Your task to perform on an android device: Search for seafood restaurants on Google Maps Image 0: 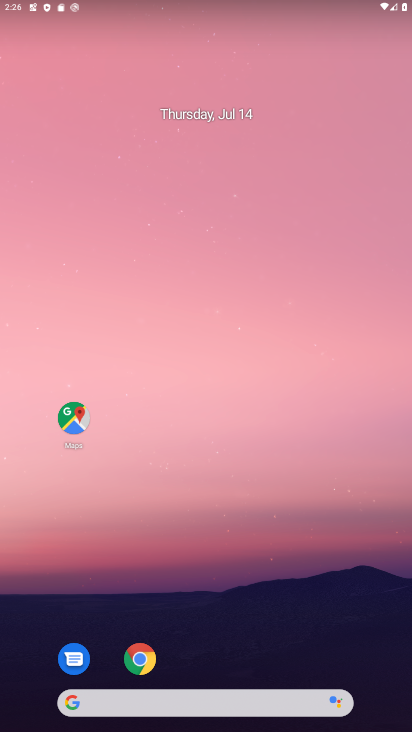
Step 0: press home button
Your task to perform on an android device: Search for seafood restaurants on Google Maps Image 1: 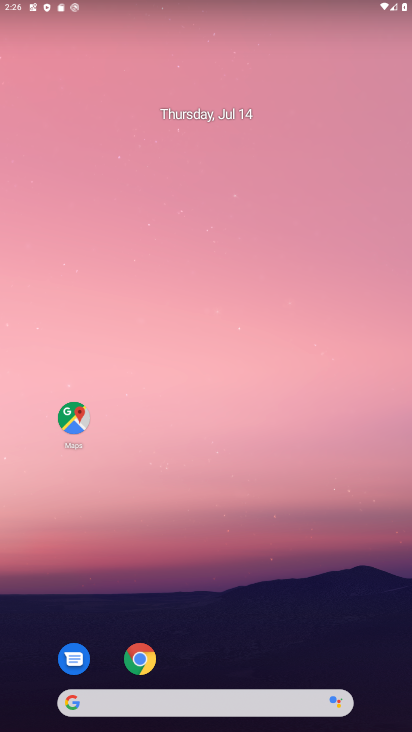
Step 1: drag from (299, 575) to (237, 49)
Your task to perform on an android device: Search for seafood restaurants on Google Maps Image 2: 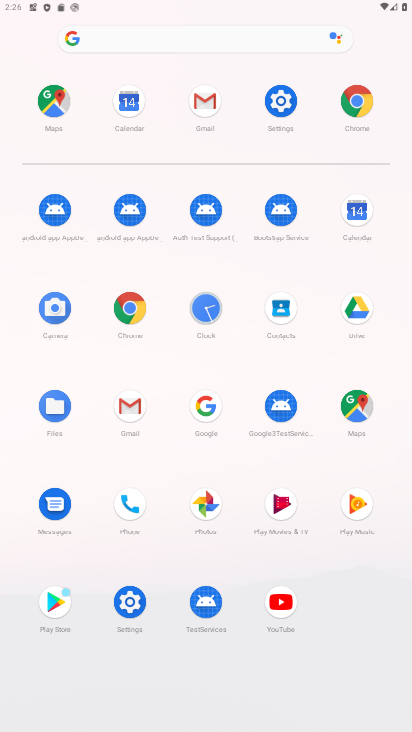
Step 2: click (364, 401)
Your task to perform on an android device: Search for seafood restaurants on Google Maps Image 3: 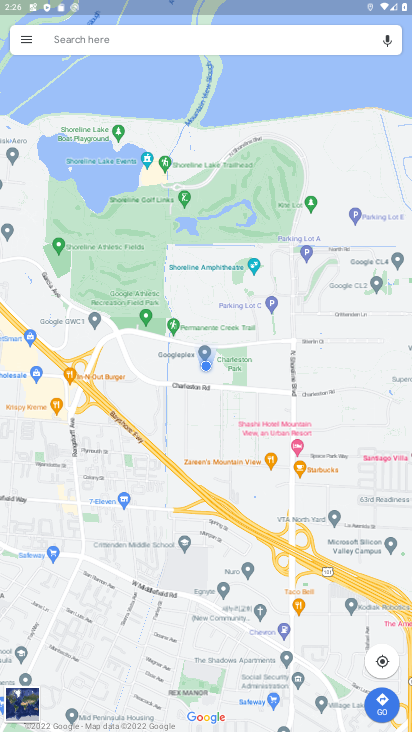
Step 3: click (202, 41)
Your task to perform on an android device: Search for seafood restaurants on Google Maps Image 4: 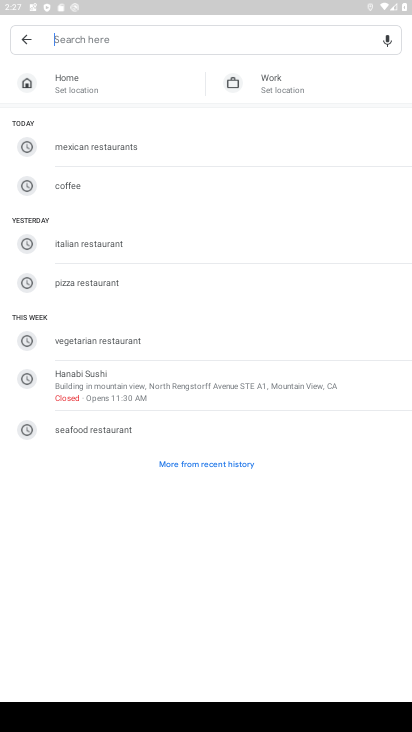
Step 4: click (112, 434)
Your task to perform on an android device: Search for seafood restaurants on Google Maps Image 5: 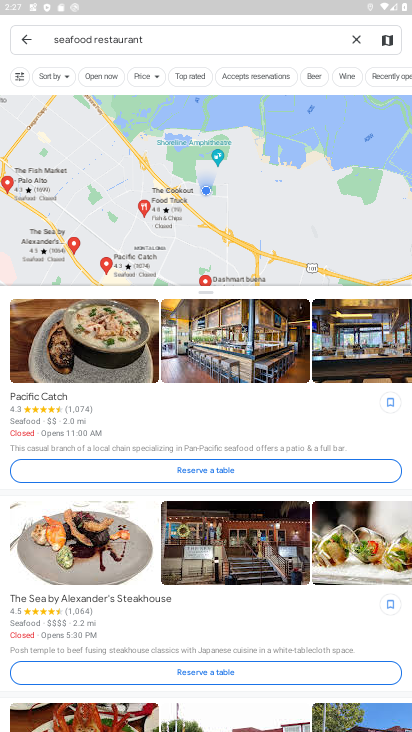
Step 5: task complete